Your task to perform on an android device: turn on airplane mode Image 0: 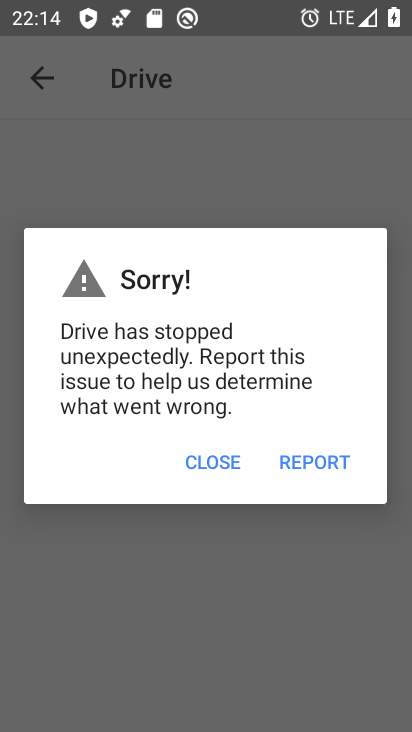
Step 0: press home button
Your task to perform on an android device: turn on airplane mode Image 1: 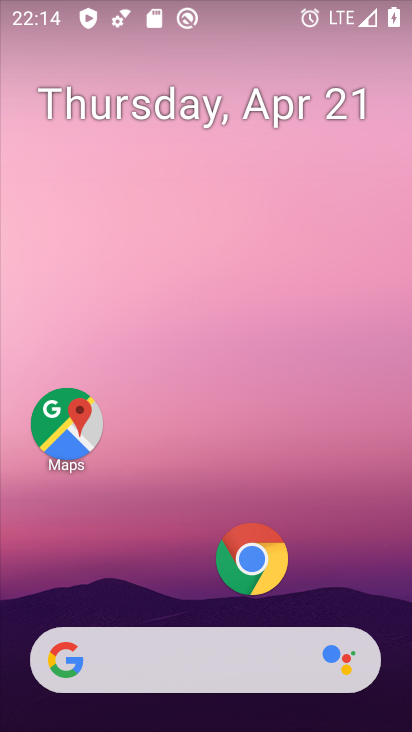
Step 1: drag from (159, 558) to (164, 156)
Your task to perform on an android device: turn on airplane mode Image 2: 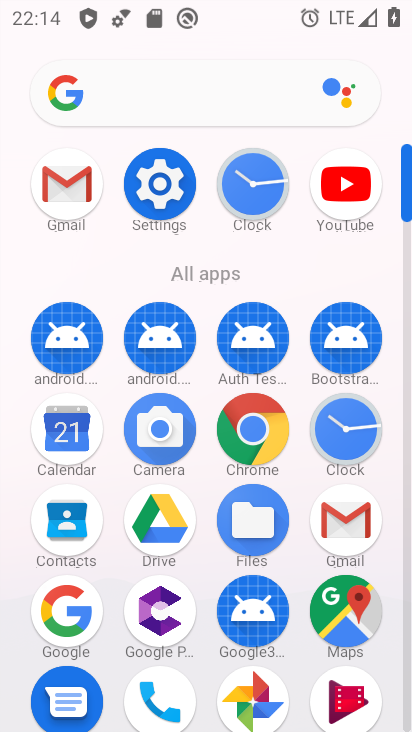
Step 2: click (157, 187)
Your task to perform on an android device: turn on airplane mode Image 3: 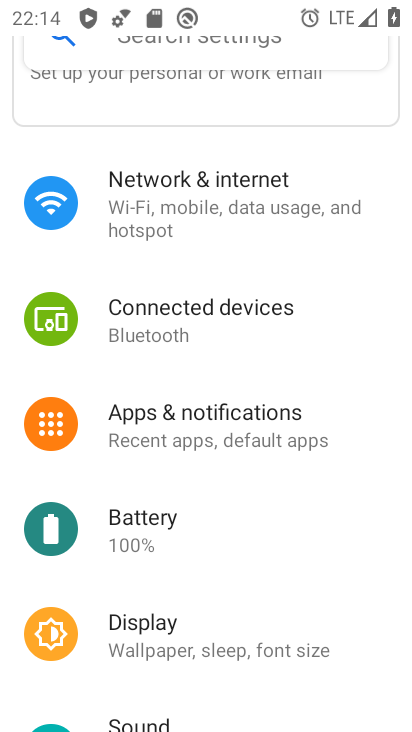
Step 3: click (162, 190)
Your task to perform on an android device: turn on airplane mode Image 4: 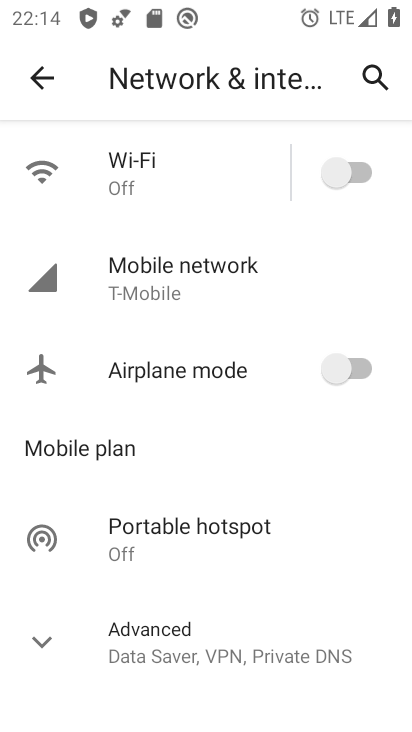
Step 4: click (336, 377)
Your task to perform on an android device: turn on airplane mode Image 5: 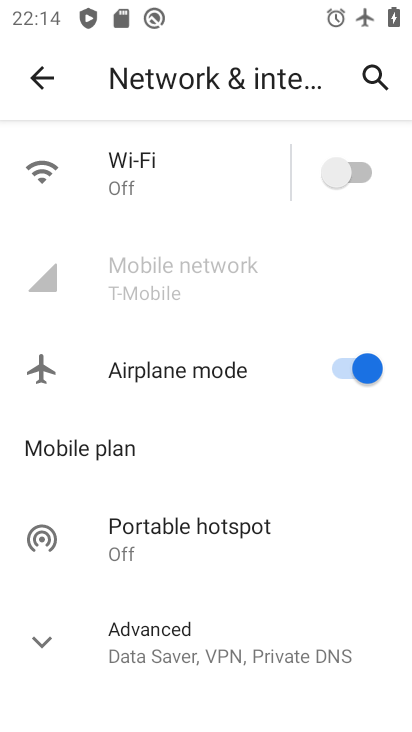
Step 5: task complete